Your task to perform on an android device: find which apps use the phone's location Image 0: 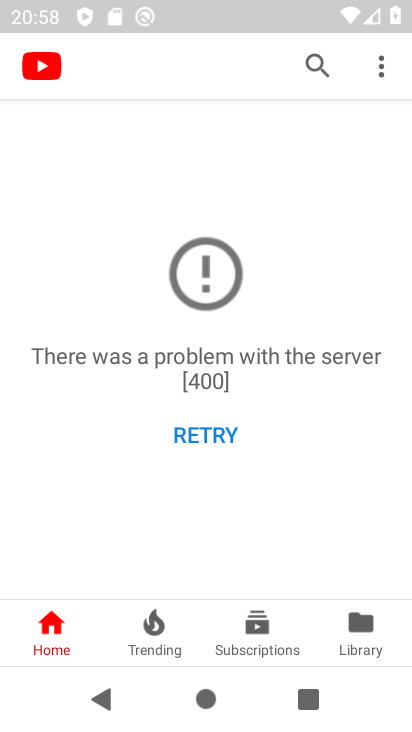
Step 0: press back button
Your task to perform on an android device: find which apps use the phone's location Image 1: 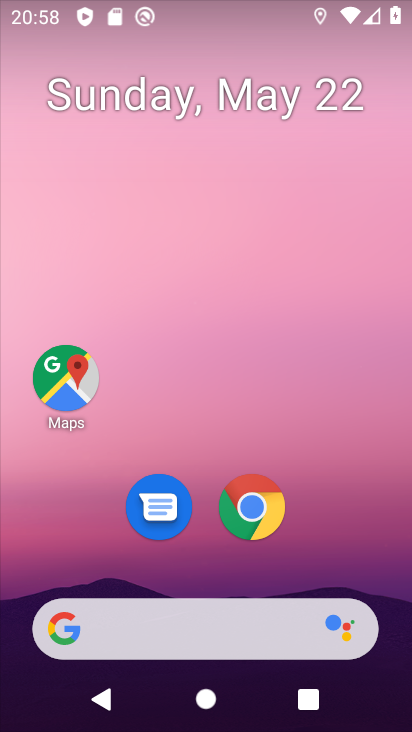
Step 1: drag from (182, 582) to (75, 59)
Your task to perform on an android device: find which apps use the phone's location Image 2: 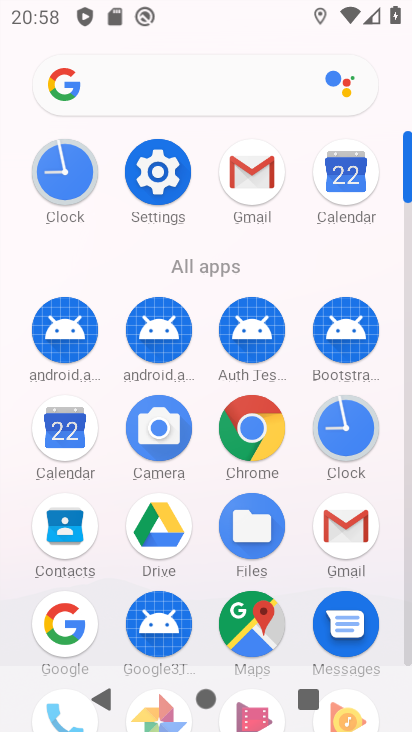
Step 2: drag from (207, 575) to (160, 195)
Your task to perform on an android device: find which apps use the phone's location Image 3: 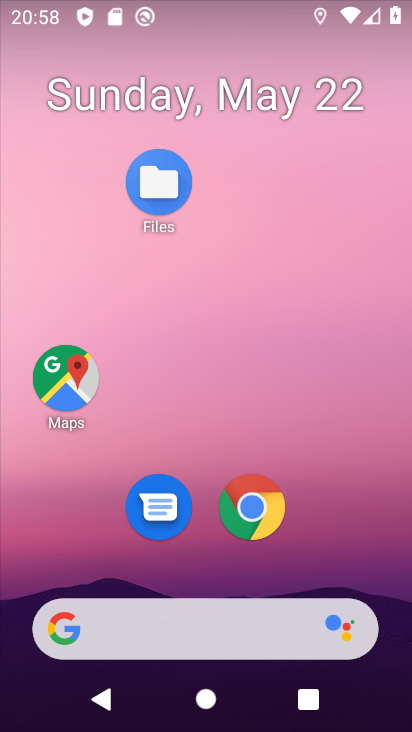
Step 3: drag from (199, 549) to (102, 29)
Your task to perform on an android device: find which apps use the phone's location Image 4: 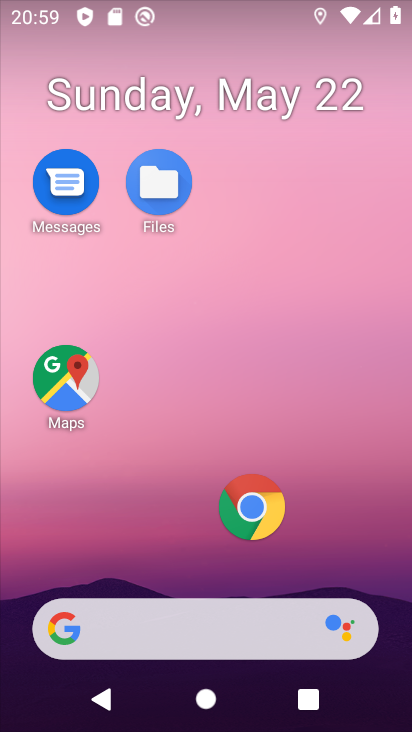
Step 4: drag from (214, 574) to (152, 2)
Your task to perform on an android device: find which apps use the phone's location Image 5: 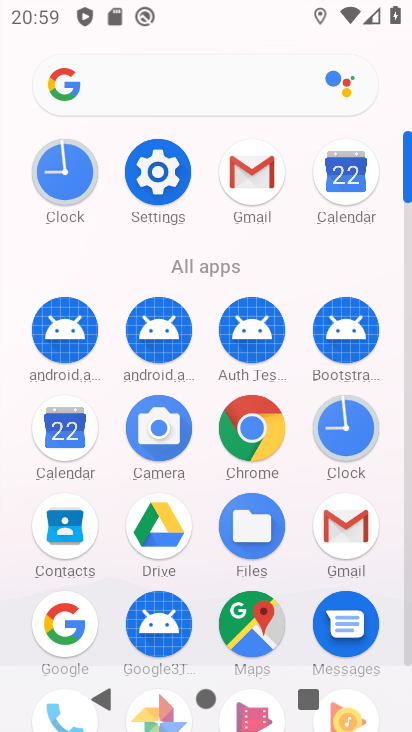
Step 5: click (145, 173)
Your task to perform on an android device: find which apps use the phone's location Image 6: 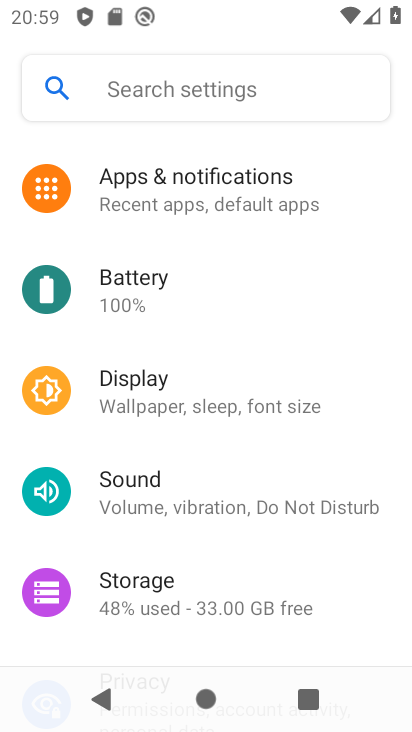
Step 6: drag from (286, 496) to (236, 188)
Your task to perform on an android device: find which apps use the phone's location Image 7: 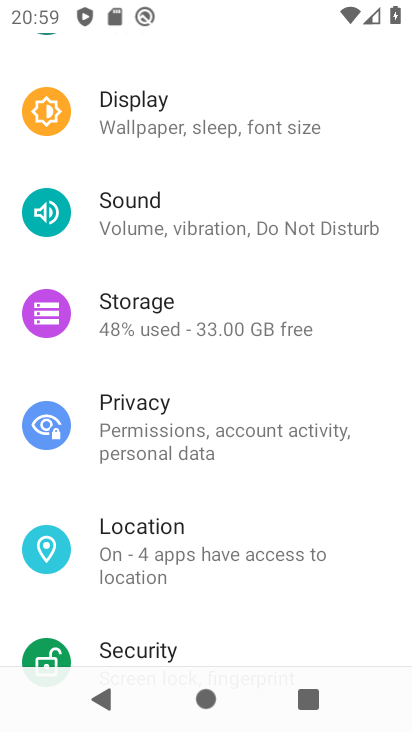
Step 7: click (205, 549)
Your task to perform on an android device: find which apps use the phone's location Image 8: 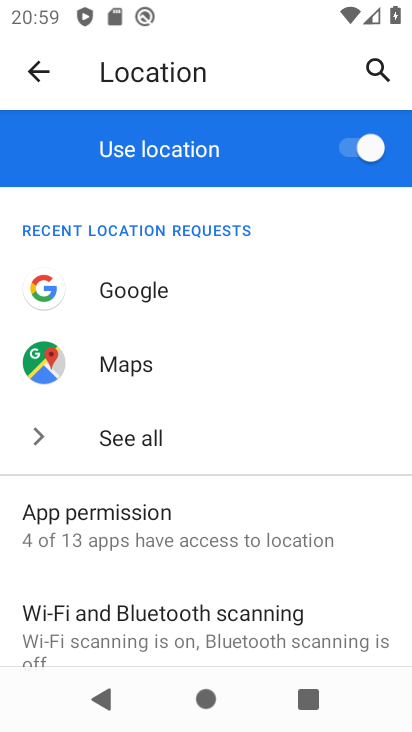
Step 8: click (176, 525)
Your task to perform on an android device: find which apps use the phone's location Image 9: 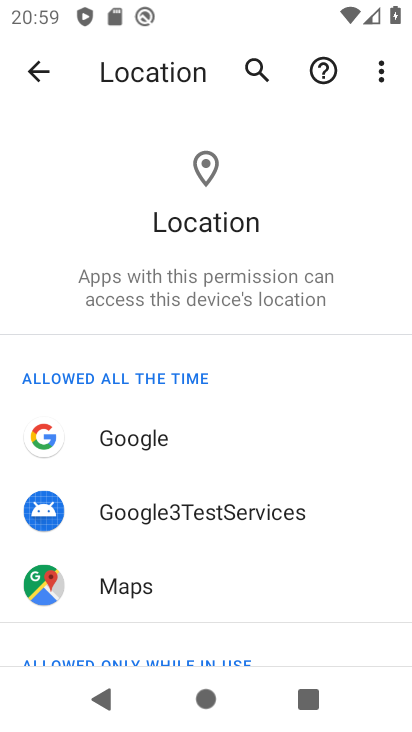
Step 9: task complete